Your task to perform on an android device: Open privacy settings Image 0: 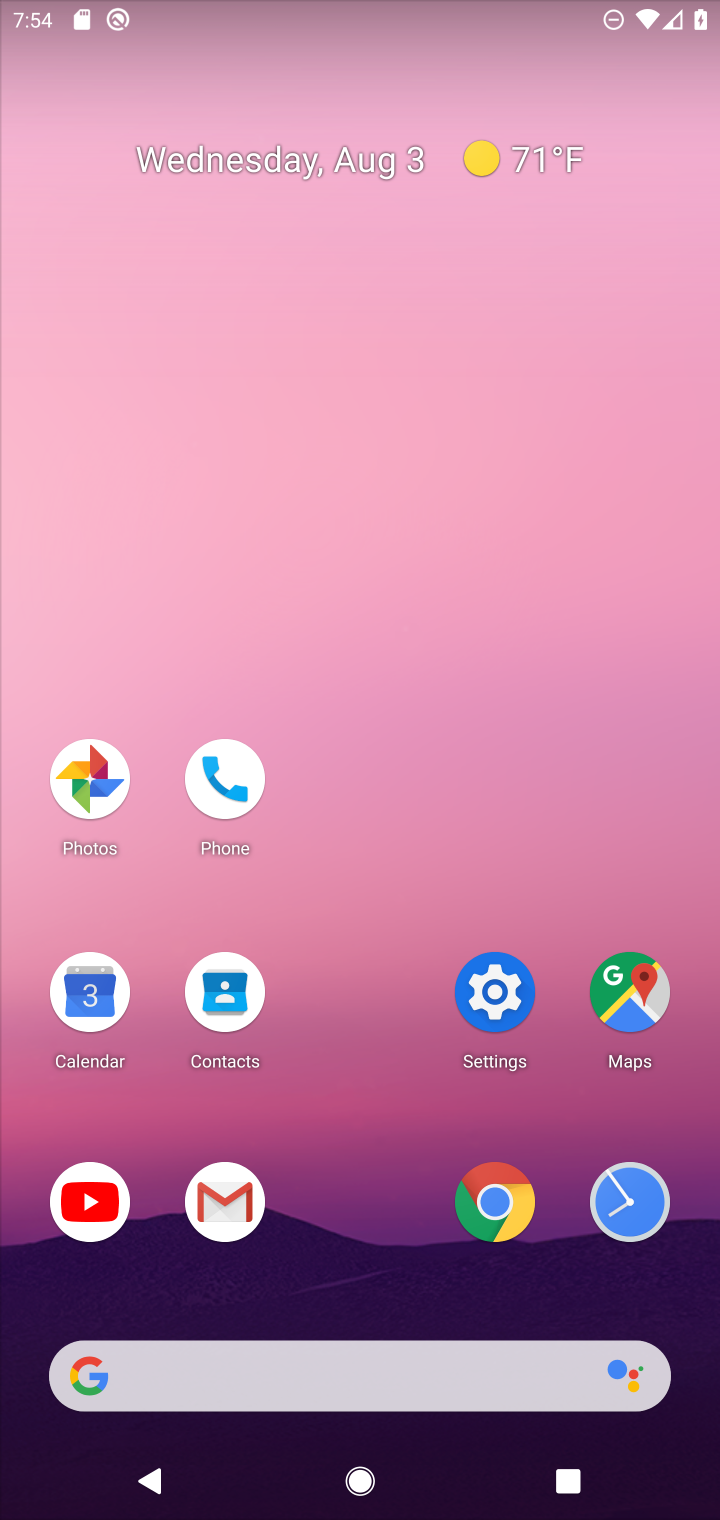
Step 0: click (503, 994)
Your task to perform on an android device: Open privacy settings Image 1: 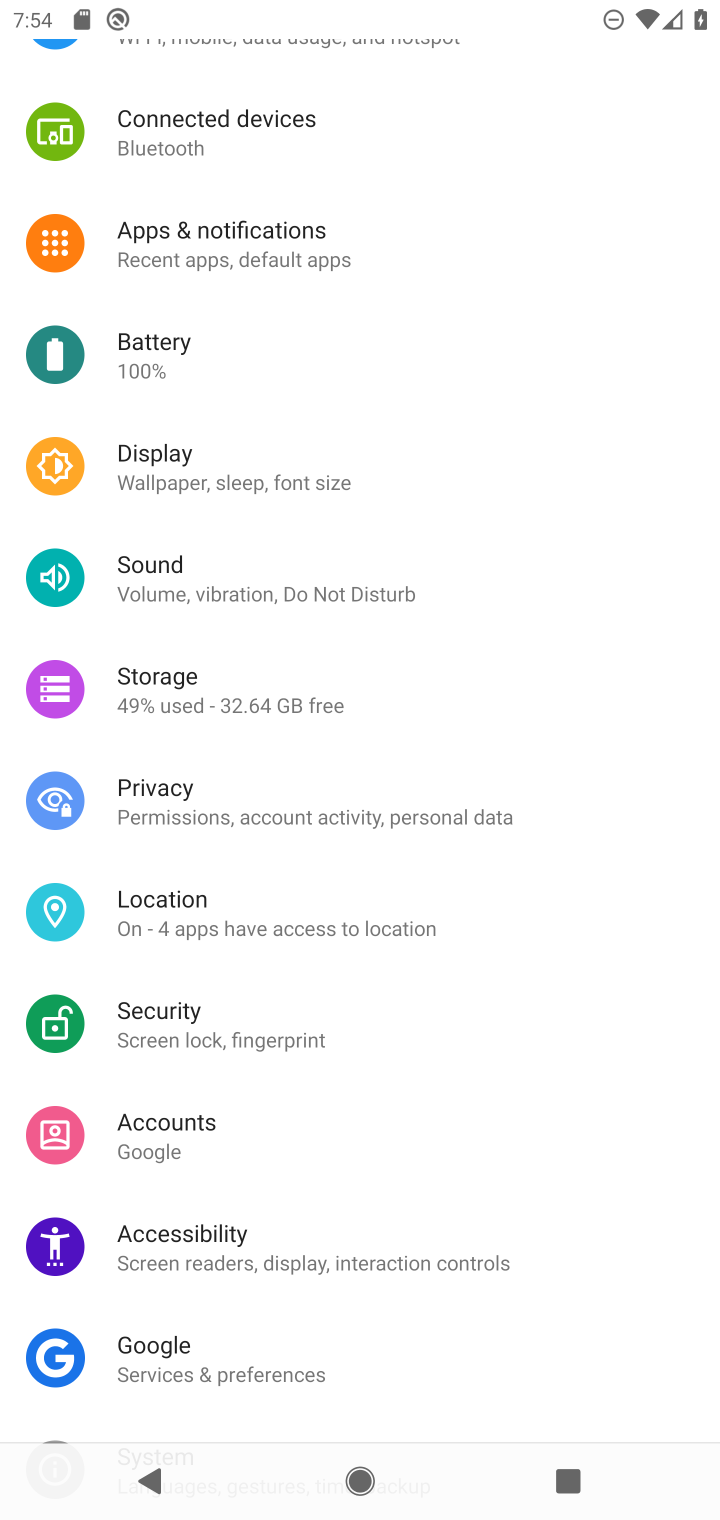
Step 1: click (171, 780)
Your task to perform on an android device: Open privacy settings Image 2: 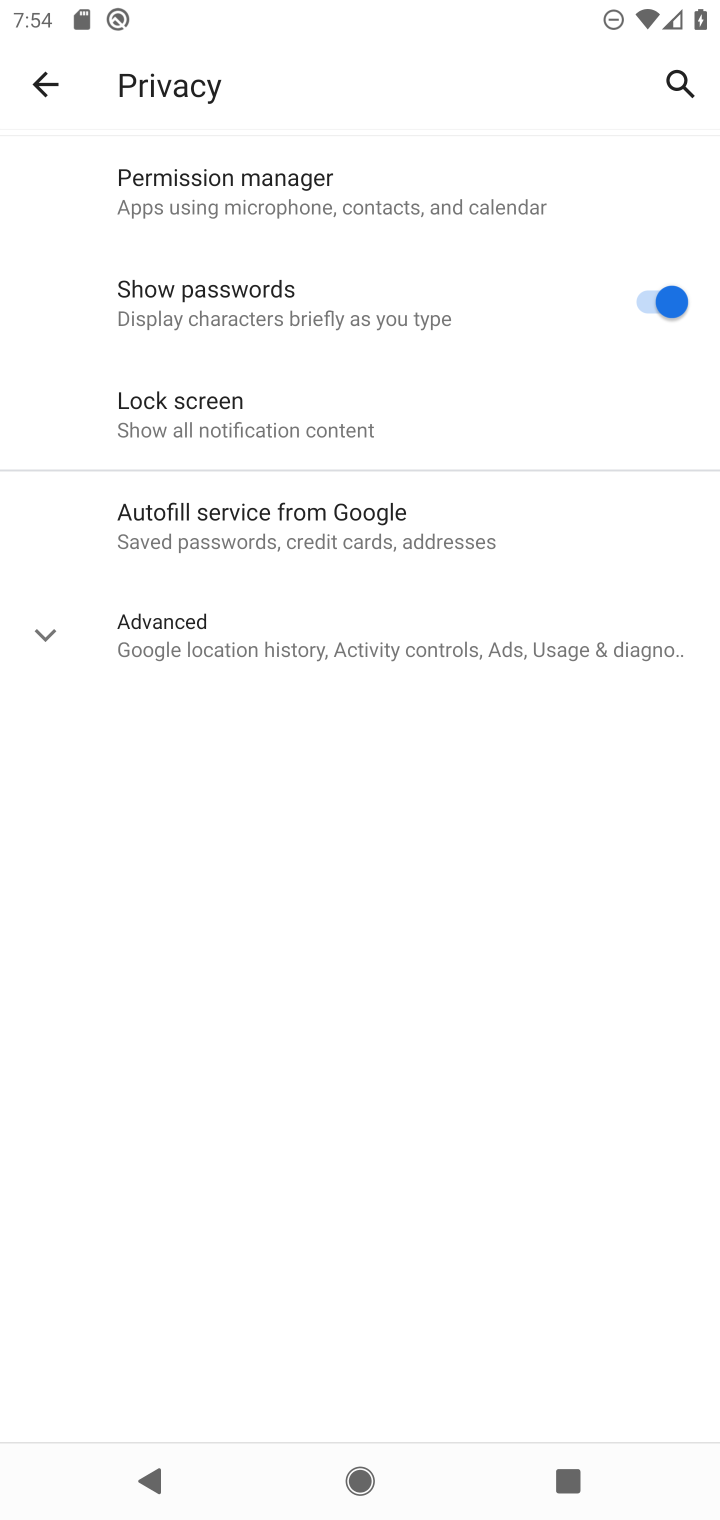
Step 2: task complete